Your task to perform on an android device: Do I have any events tomorrow? Image 0: 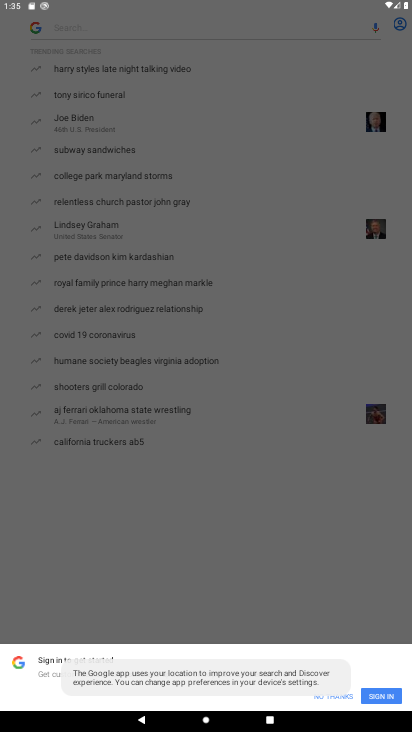
Step 0: press home button
Your task to perform on an android device: Do I have any events tomorrow? Image 1: 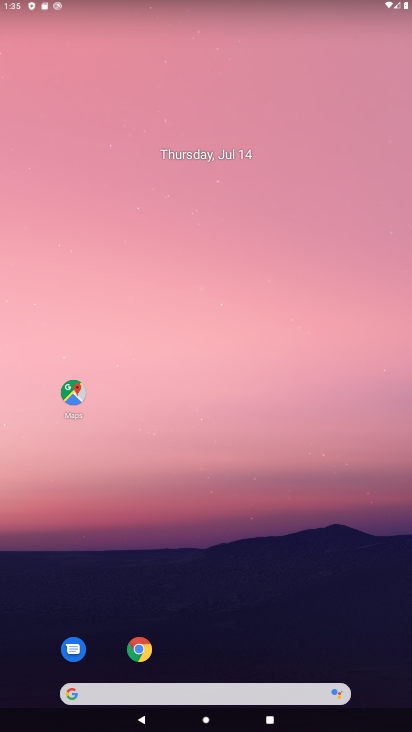
Step 1: drag from (236, 634) to (302, 84)
Your task to perform on an android device: Do I have any events tomorrow? Image 2: 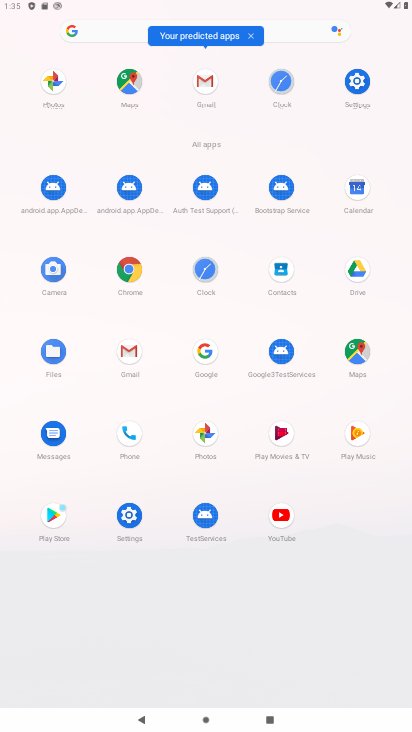
Step 2: click (356, 186)
Your task to perform on an android device: Do I have any events tomorrow? Image 3: 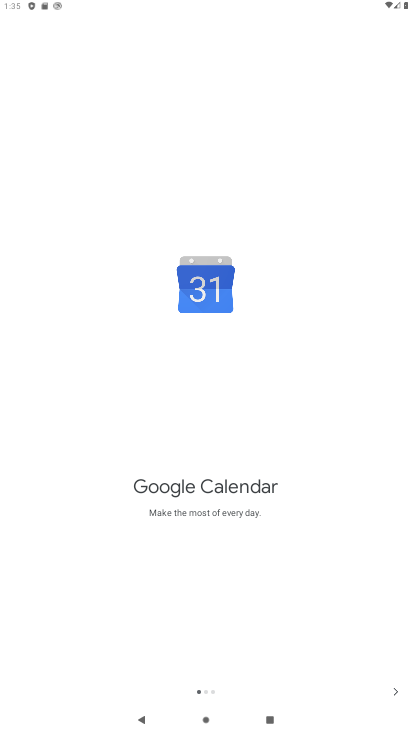
Step 3: click (401, 692)
Your task to perform on an android device: Do I have any events tomorrow? Image 4: 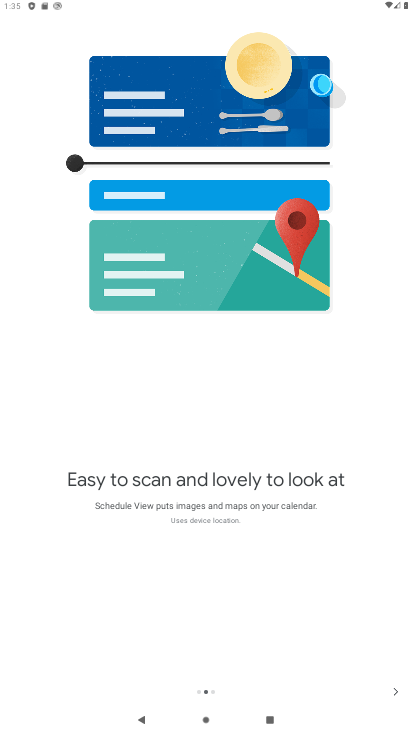
Step 4: click (391, 691)
Your task to perform on an android device: Do I have any events tomorrow? Image 5: 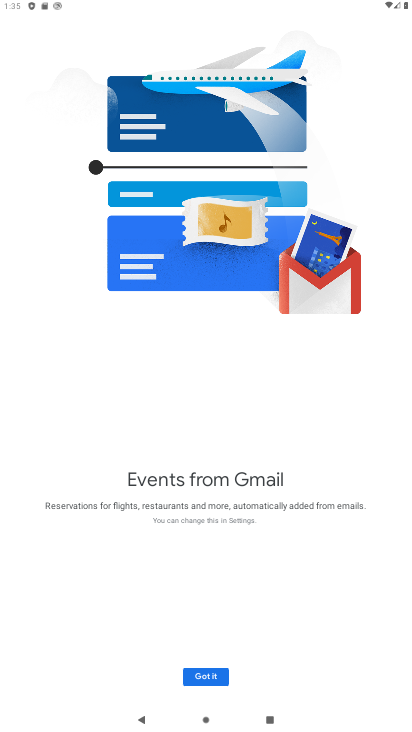
Step 5: click (201, 674)
Your task to perform on an android device: Do I have any events tomorrow? Image 6: 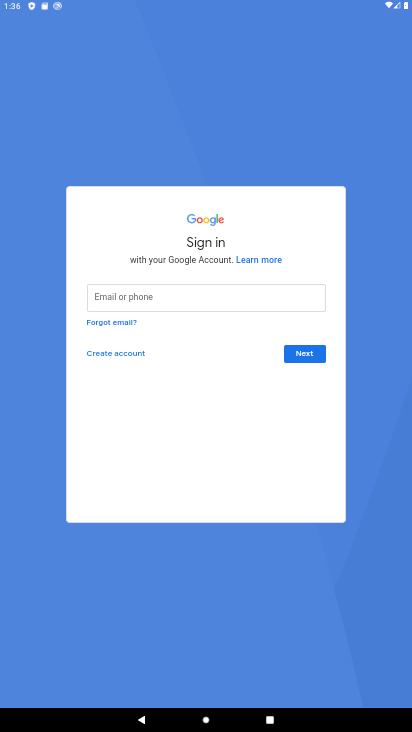
Step 6: task complete